Your task to perform on an android device: show emergency info Image 0: 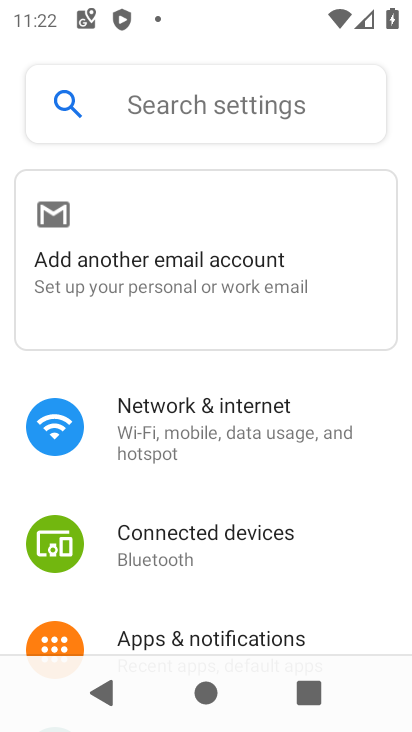
Step 0: drag from (261, 557) to (312, 38)
Your task to perform on an android device: show emergency info Image 1: 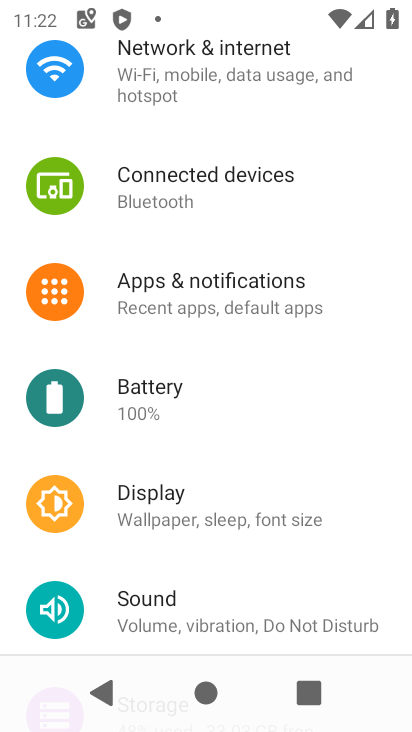
Step 1: drag from (327, 584) to (340, 27)
Your task to perform on an android device: show emergency info Image 2: 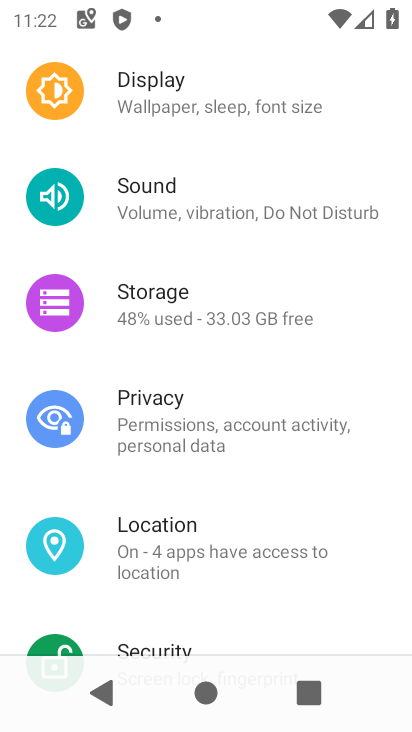
Step 2: drag from (275, 623) to (335, 171)
Your task to perform on an android device: show emergency info Image 3: 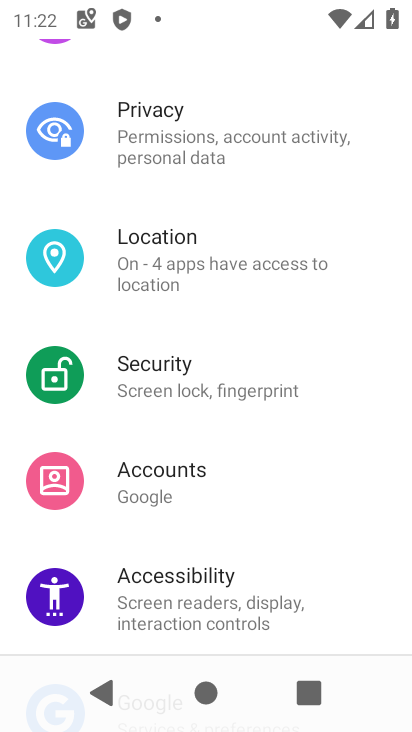
Step 3: drag from (297, 567) to (304, 64)
Your task to perform on an android device: show emergency info Image 4: 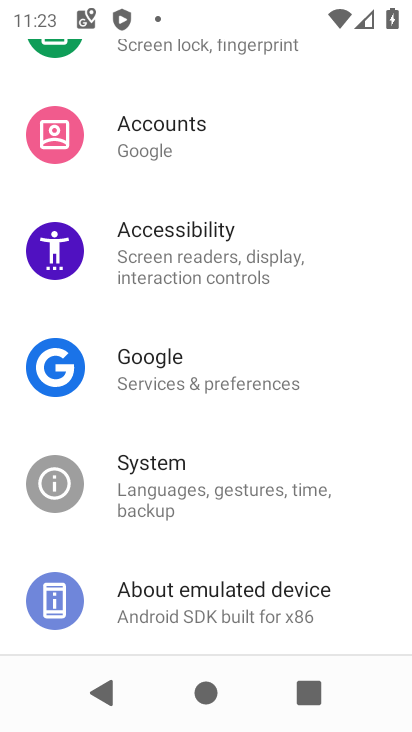
Step 4: click (169, 597)
Your task to perform on an android device: show emergency info Image 5: 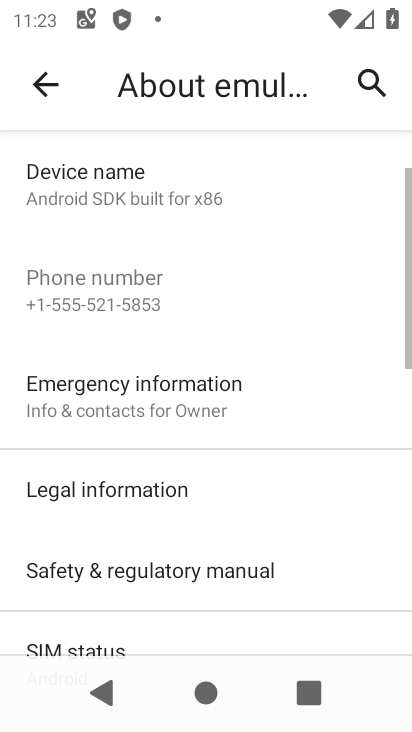
Step 5: click (107, 403)
Your task to perform on an android device: show emergency info Image 6: 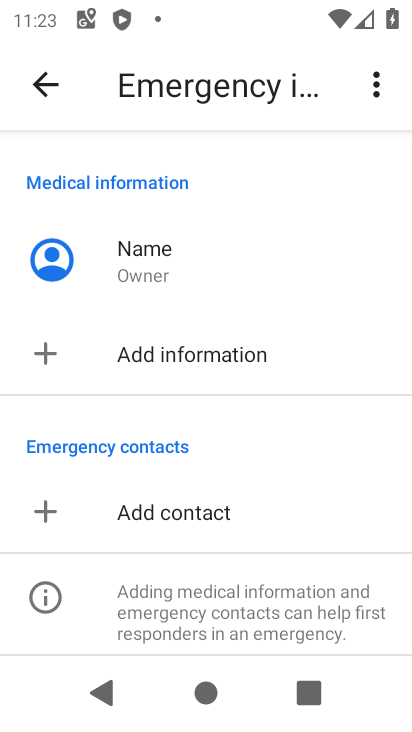
Step 6: task complete